Your task to perform on an android device: add a label to a message in the gmail app Image 0: 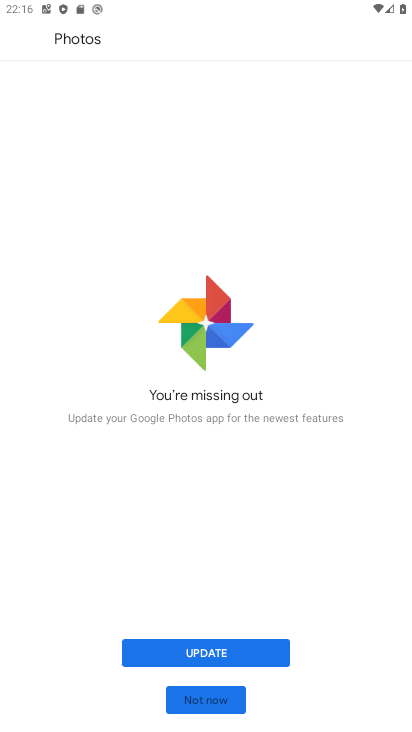
Step 0: press home button
Your task to perform on an android device: add a label to a message in the gmail app Image 1: 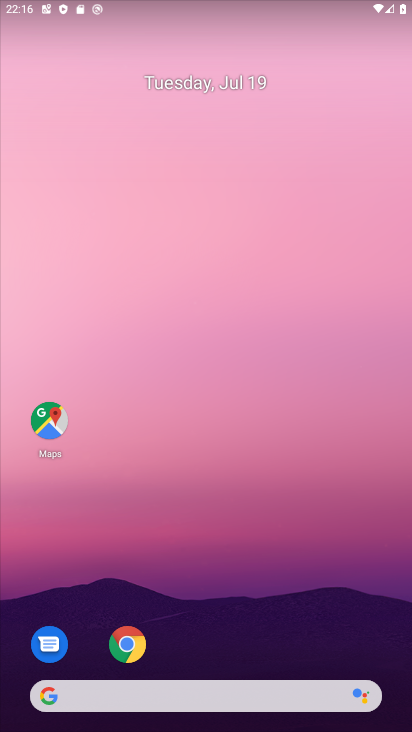
Step 1: drag from (248, 692) to (245, 113)
Your task to perform on an android device: add a label to a message in the gmail app Image 2: 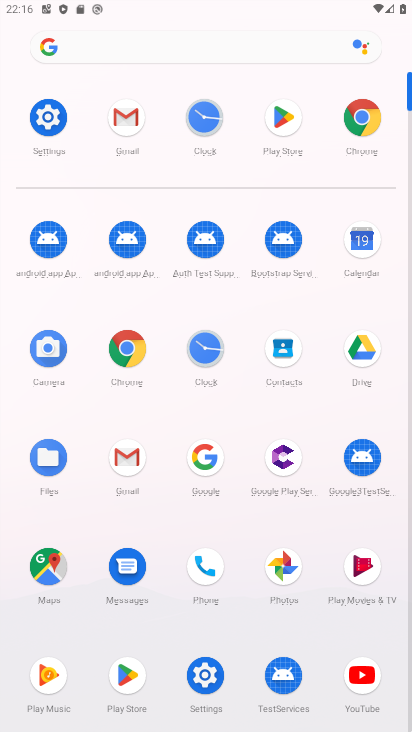
Step 2: click (128, 457)
Your task to perform on an android device: add a label to a message in the gmail app Image 3: 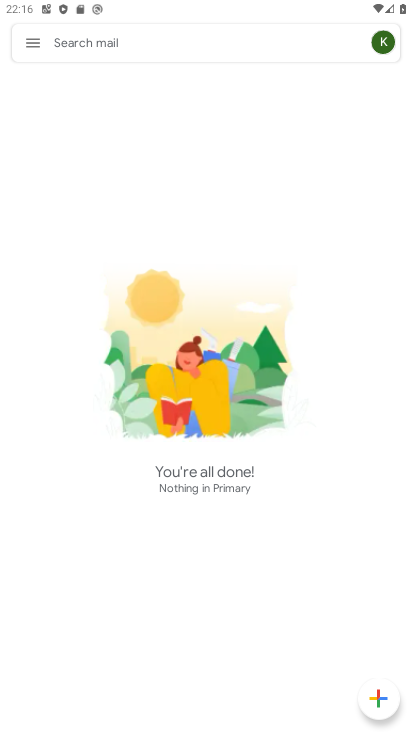
Step 3: task complete